Your task to perform on an android device: Add razer blackwidow to the cart on ebay, then select checkout. Image 0: 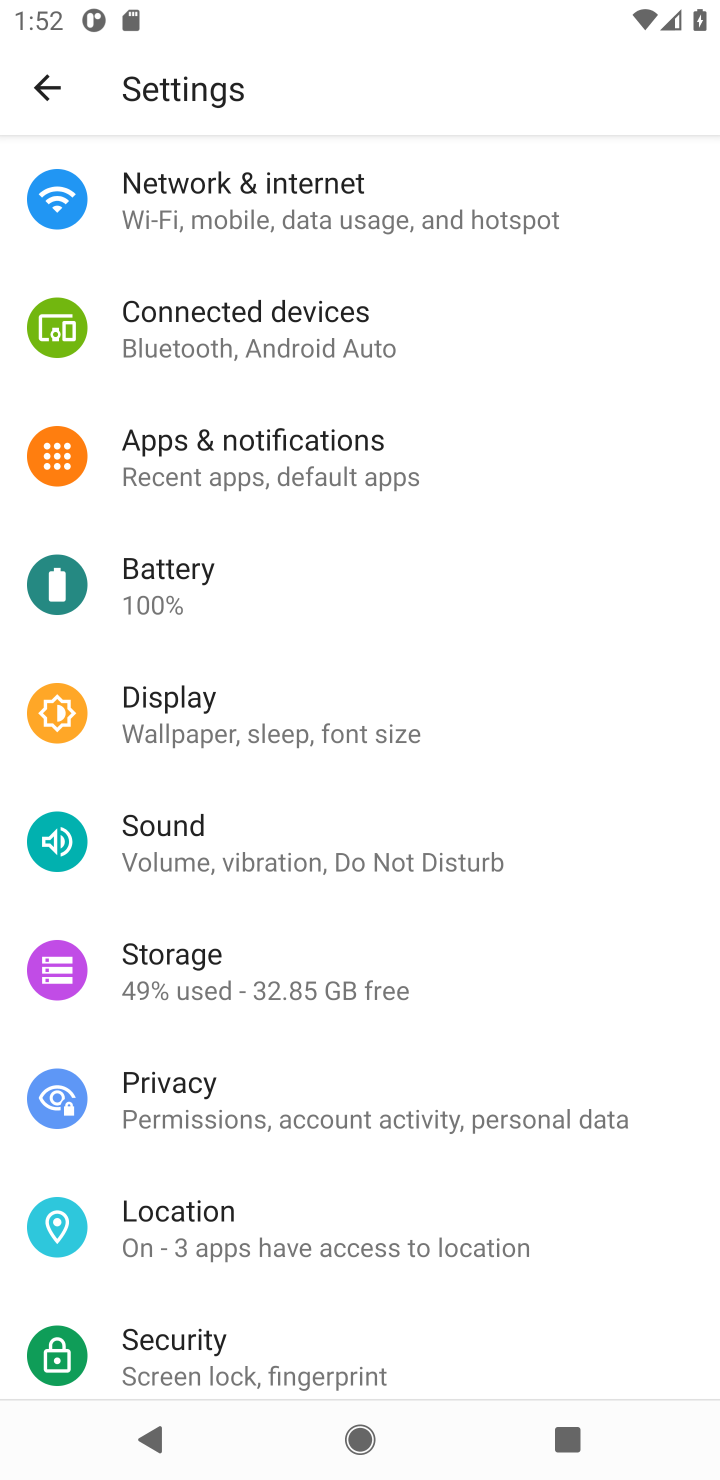
Step 0: press home button
Your task to perform on an android device: Add razer blackwidow to the cart on ebay, then select checkout. Image 1: 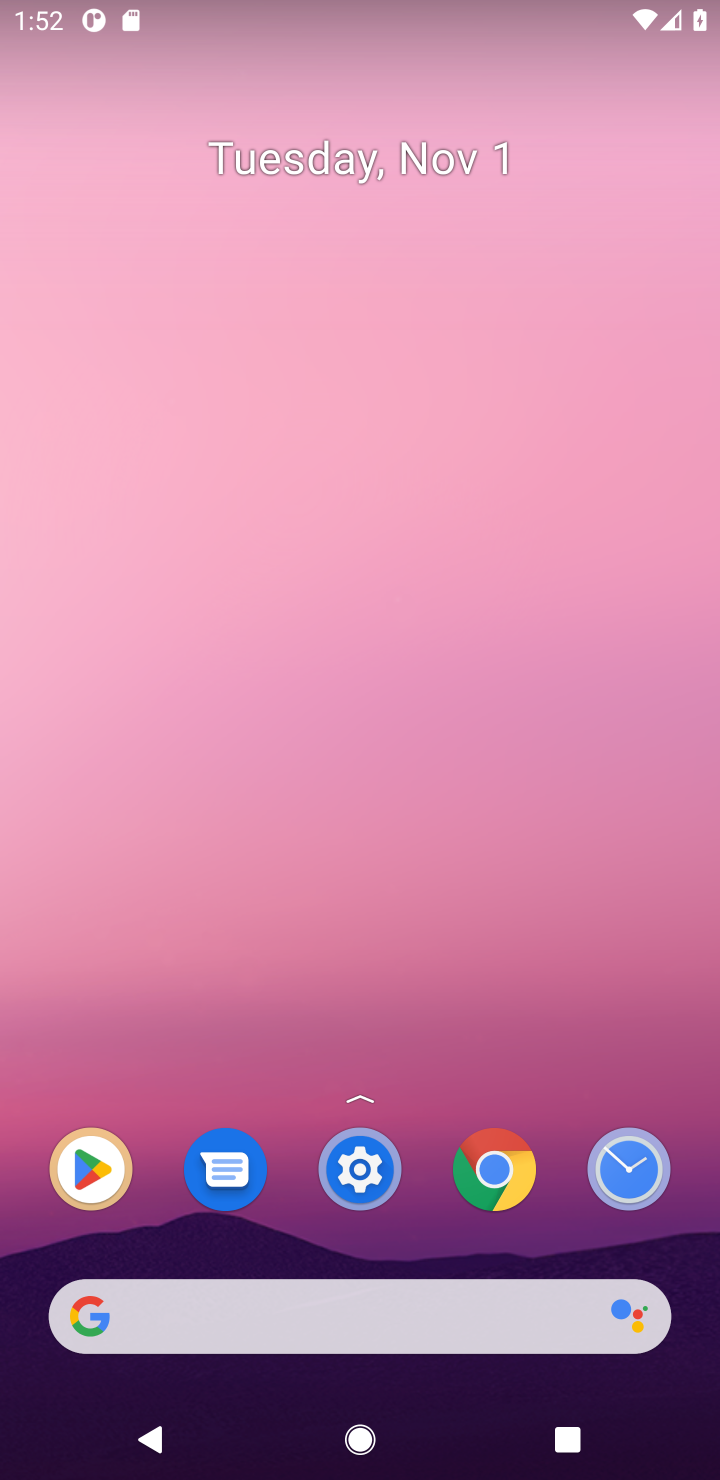
Step 1: drag from (424, 839) to (470, 9)
Your task to perform on an android device: Add razer blackwidow to the cart on ebay, then select checkout. Image 2: 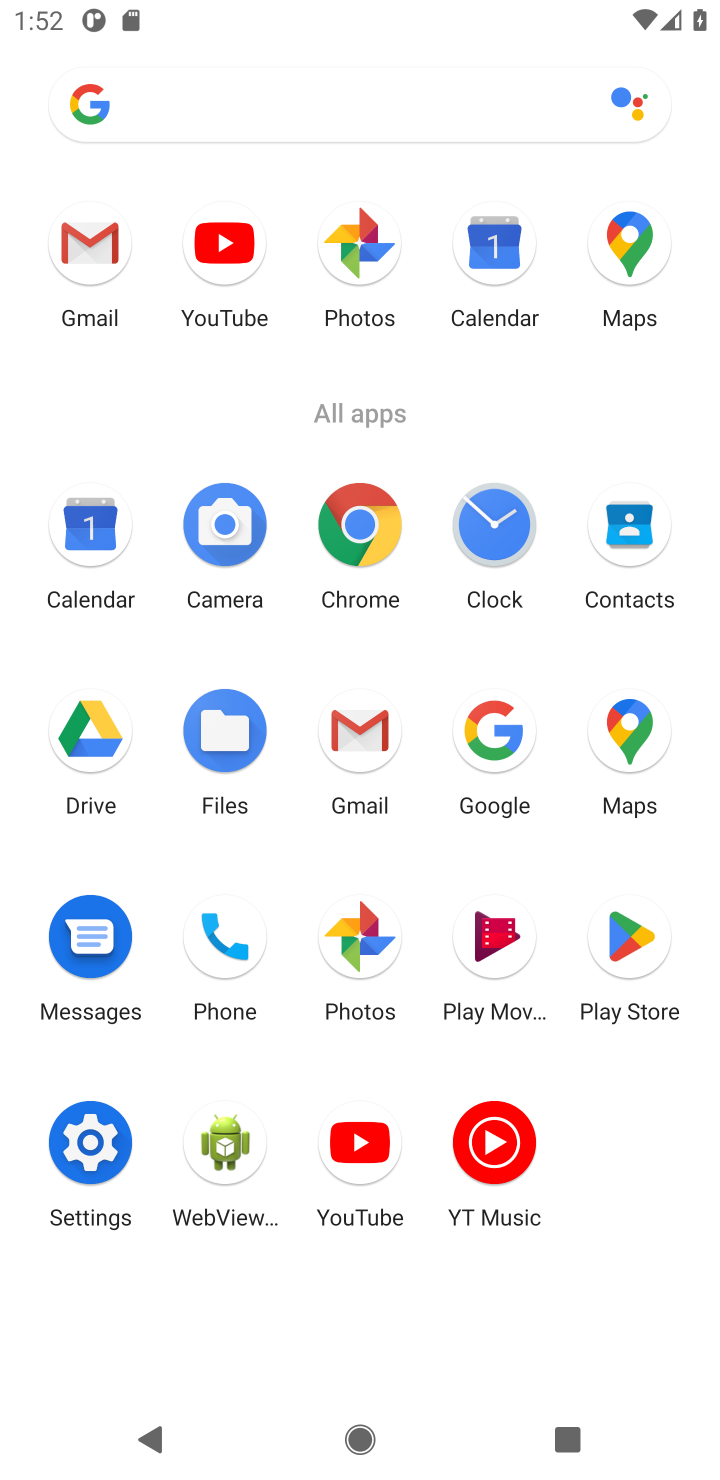
Step 2: click (352, 513)
Your task to perform on an android device: Add razer blackwidow to the cart on ebay, then select checkout. Image 3: 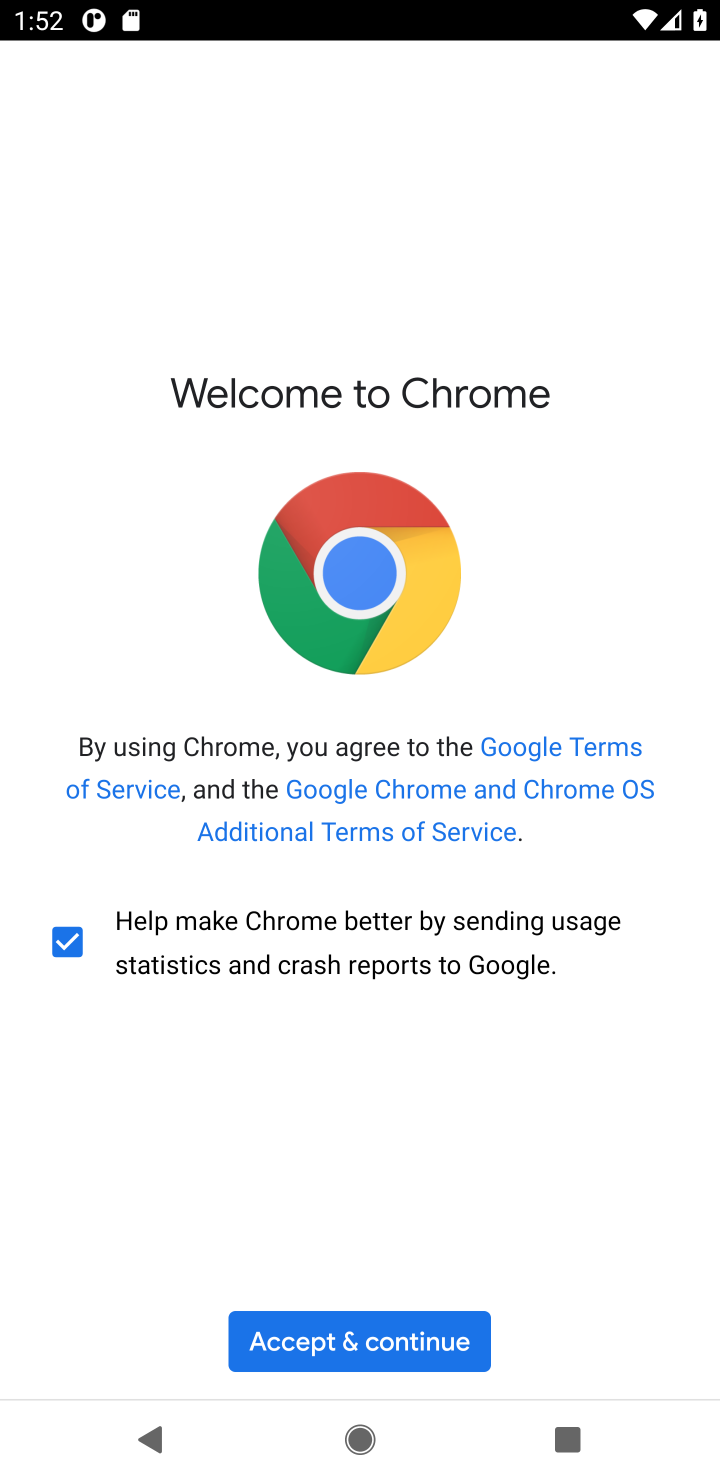
Step 3: click (348, 1342)
Your task to perform on an android device: Add razer blackwidow to the cart on ebay, then select checkout. Image 4: 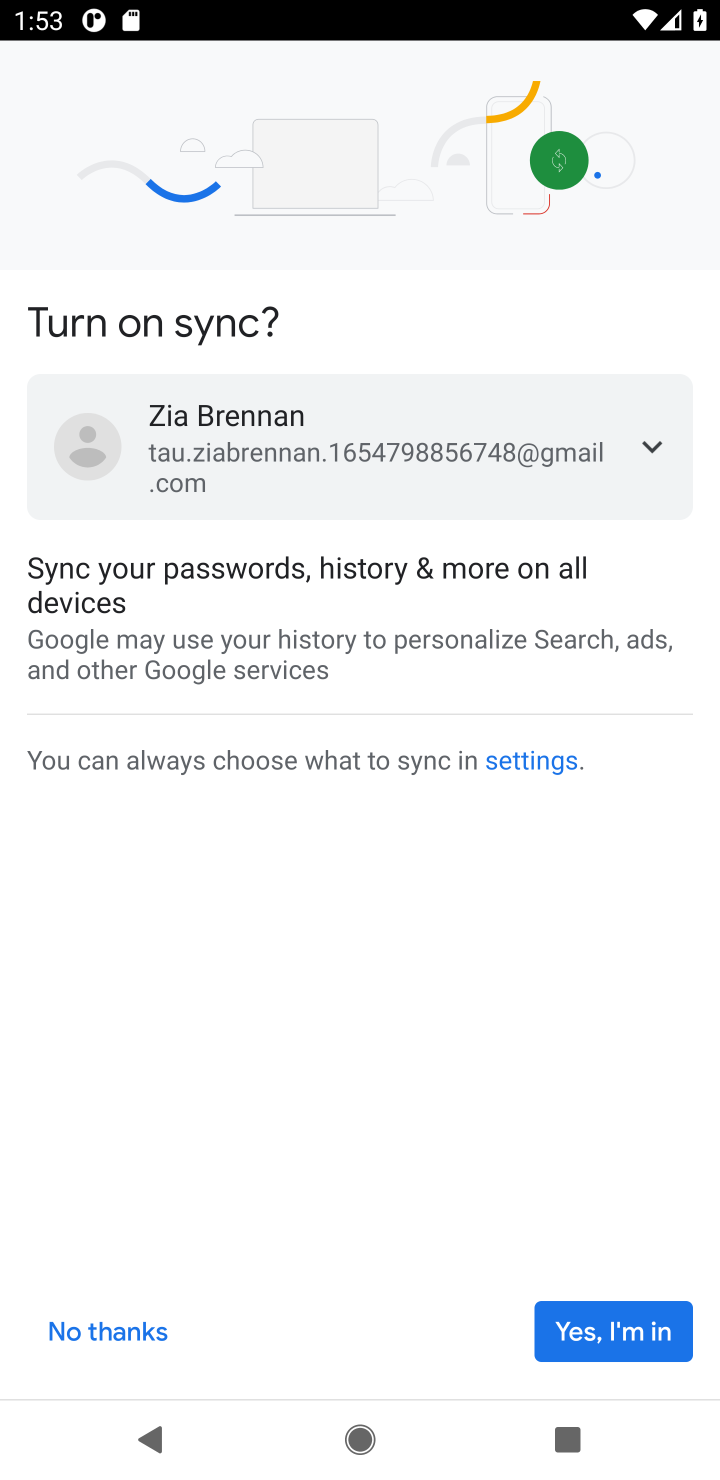
Step 4: click (602, 1323)
Your task to perform on an android device: Add razer blackwidow to the cart on ebay, then select checkout. Image 5: 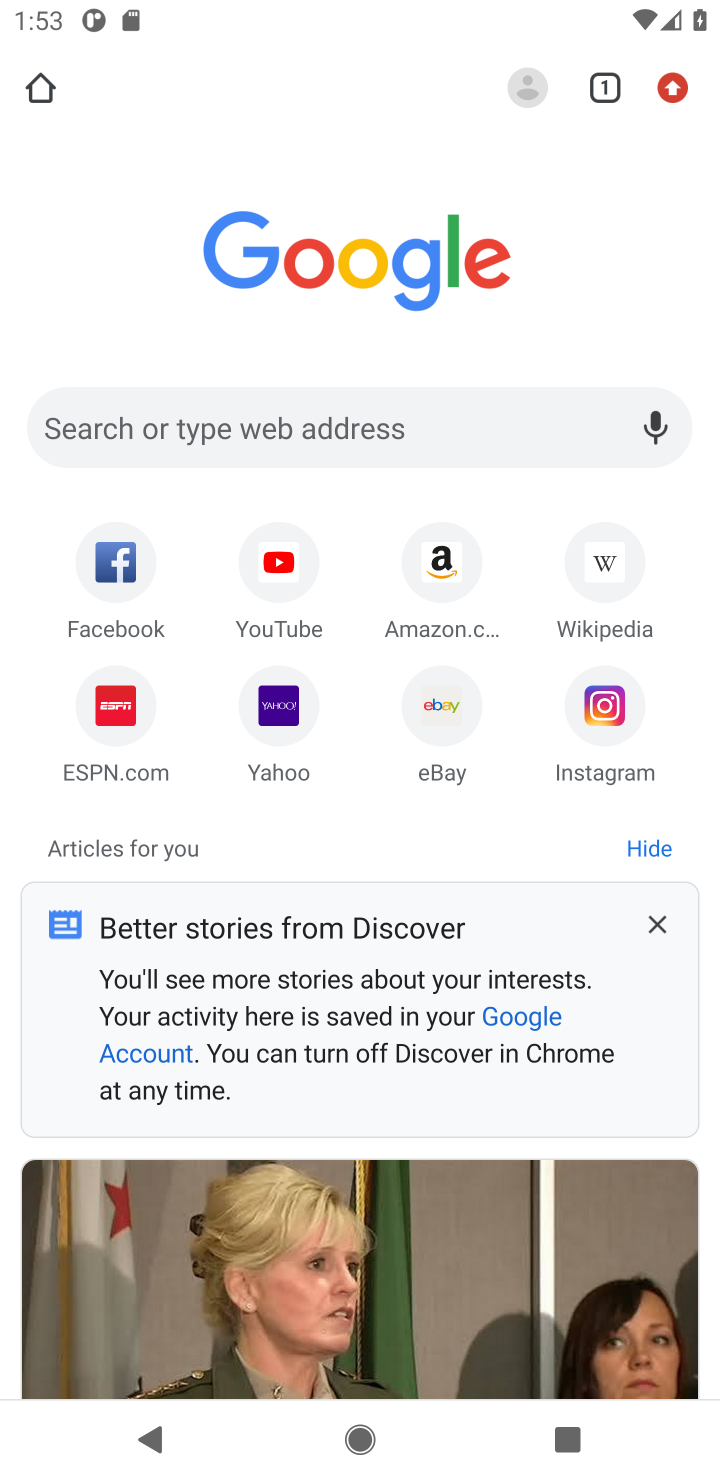
Step 5: click (206, 437)
Your task to perform on an android device: Add razer blackwidow to the cart on ebay, then select checkout. Image 6: 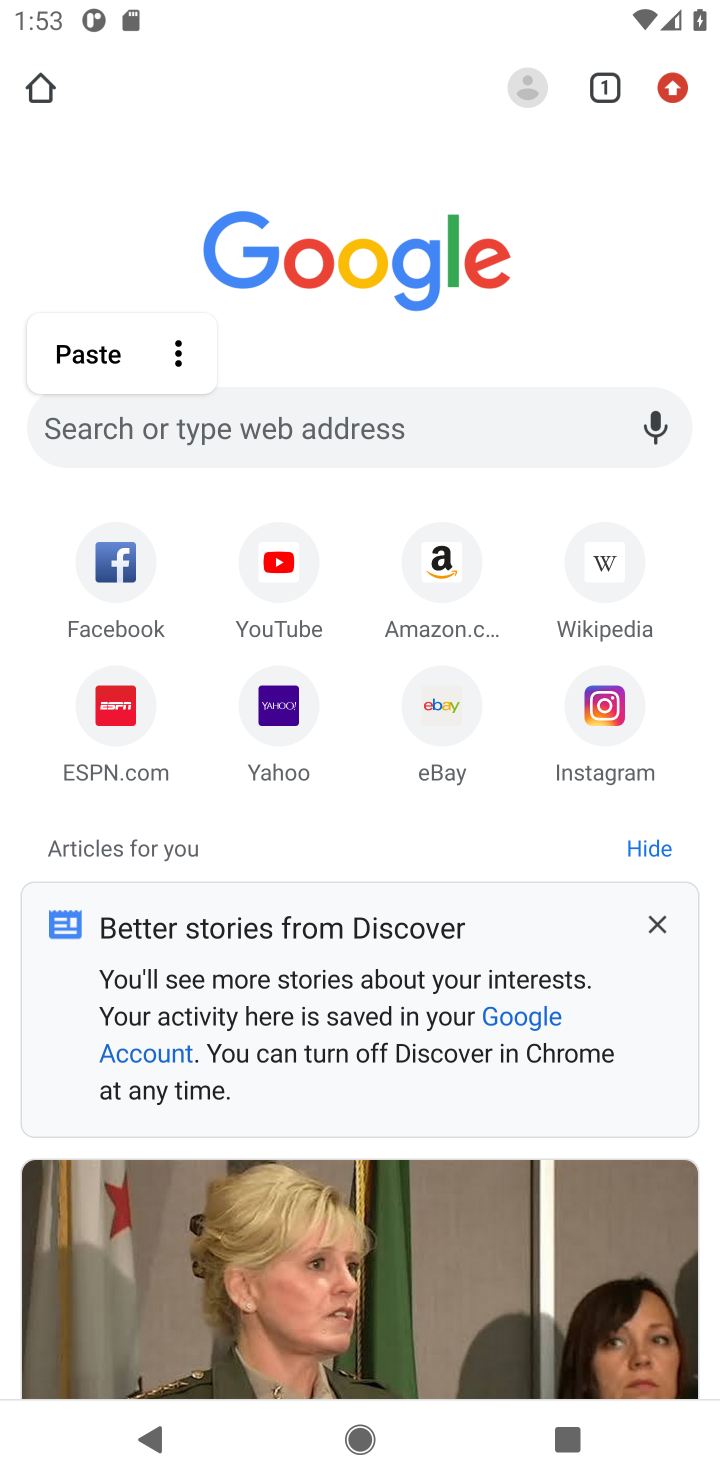
Step 6: click (430, 716)
Your task to perform on an android device: Add razer blackwidow to the cart on ebay, then select checkout. Image 7: 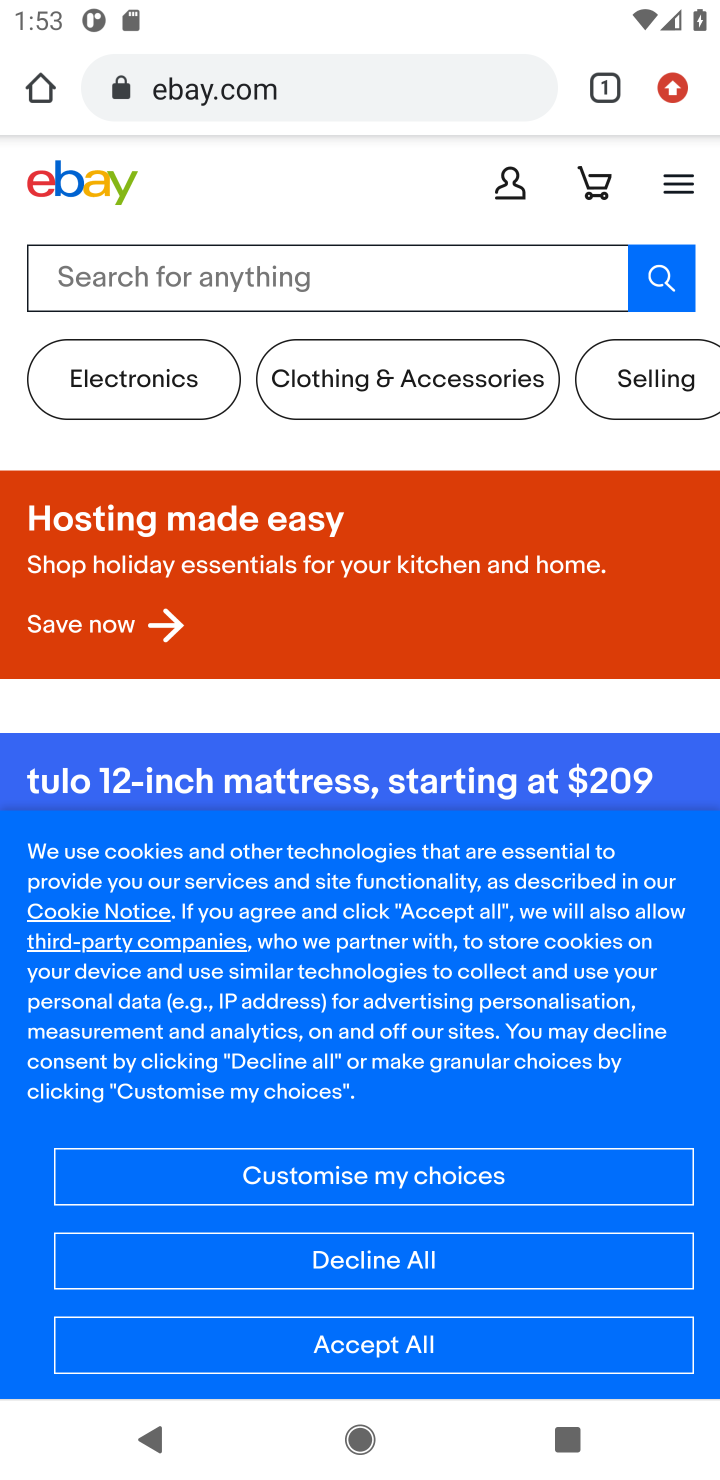
Step 7: click (237, 253)
Your task to perform on an android device: Add razer blackwidow to the cart on ebay, then select checkout. Image 8: 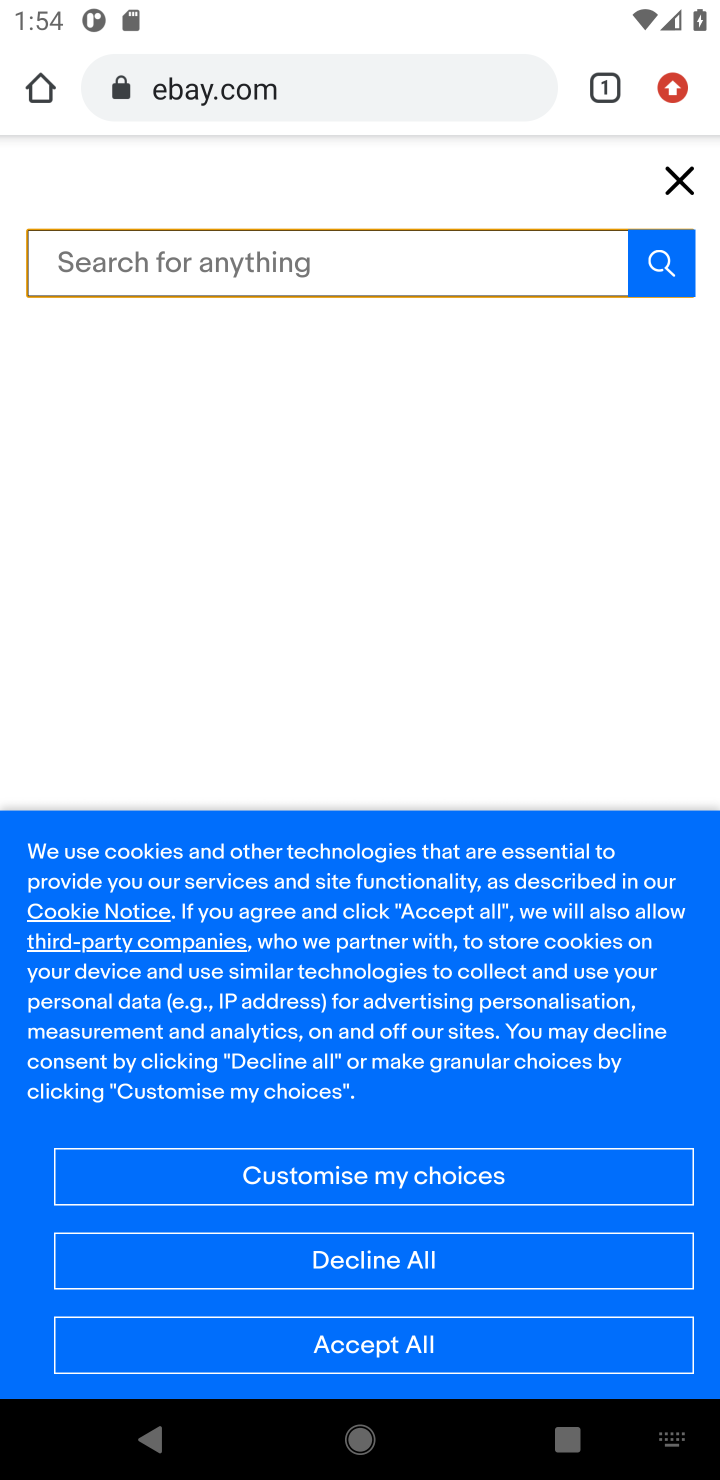
Step 8: type "razer blackwidow"
Your task to perform on an android device: Add razer blackwidow to the cart on ebay, then select checkout. Image 9: 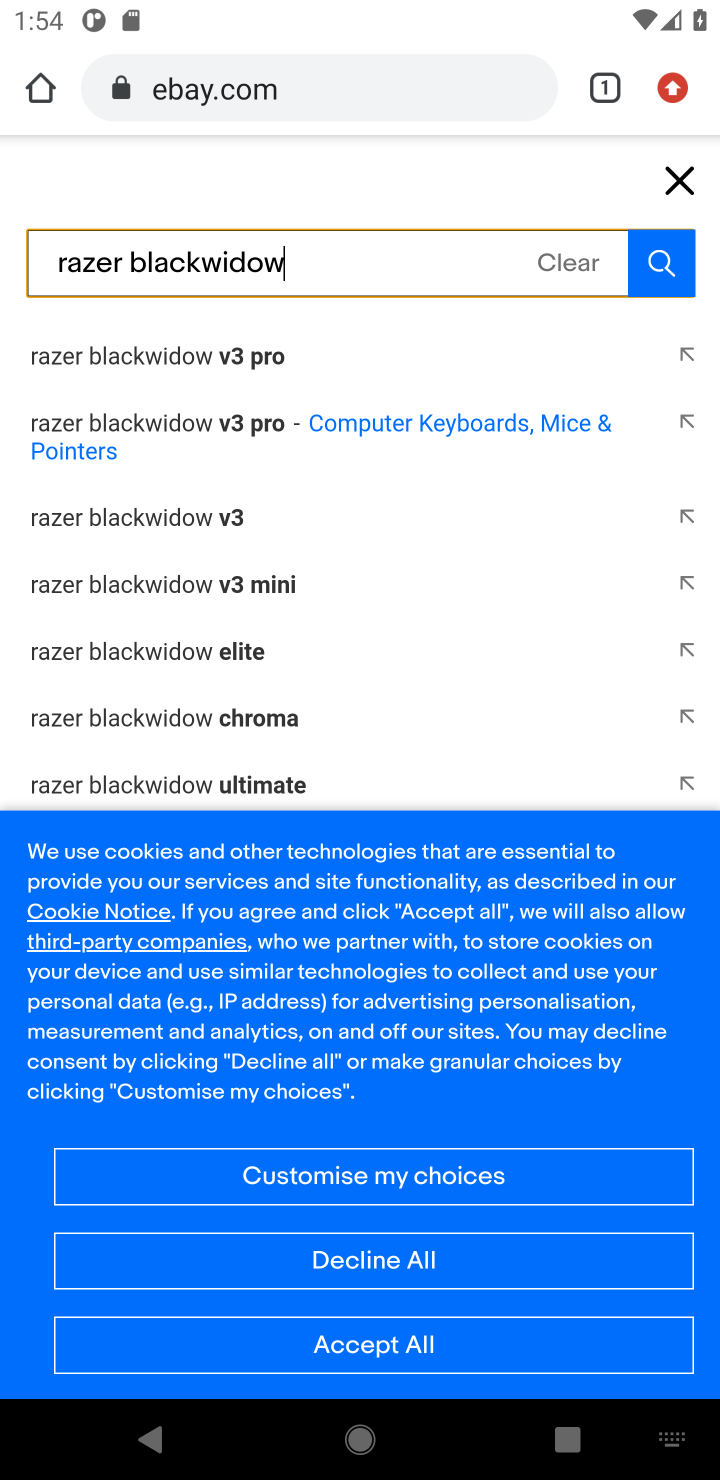
Step 9: click (209, 359)
Your task to perform on an android device: Add razer blackwidow to the cart on ebay, then select checkout. Image 10: 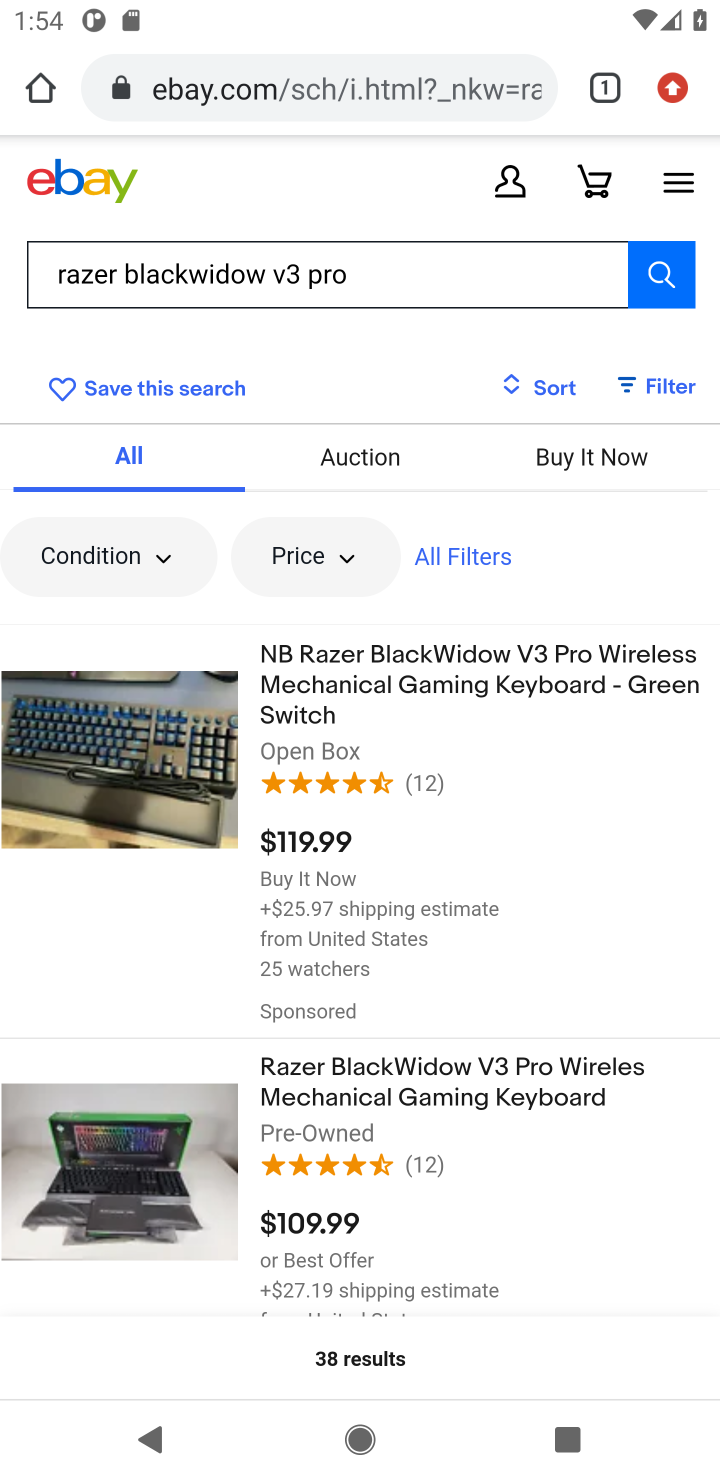
Step 10: click (330, 673)
Your task to perform on an android device: Add razer blackwidow to the cart on ebay, then select checkout. Image 11: 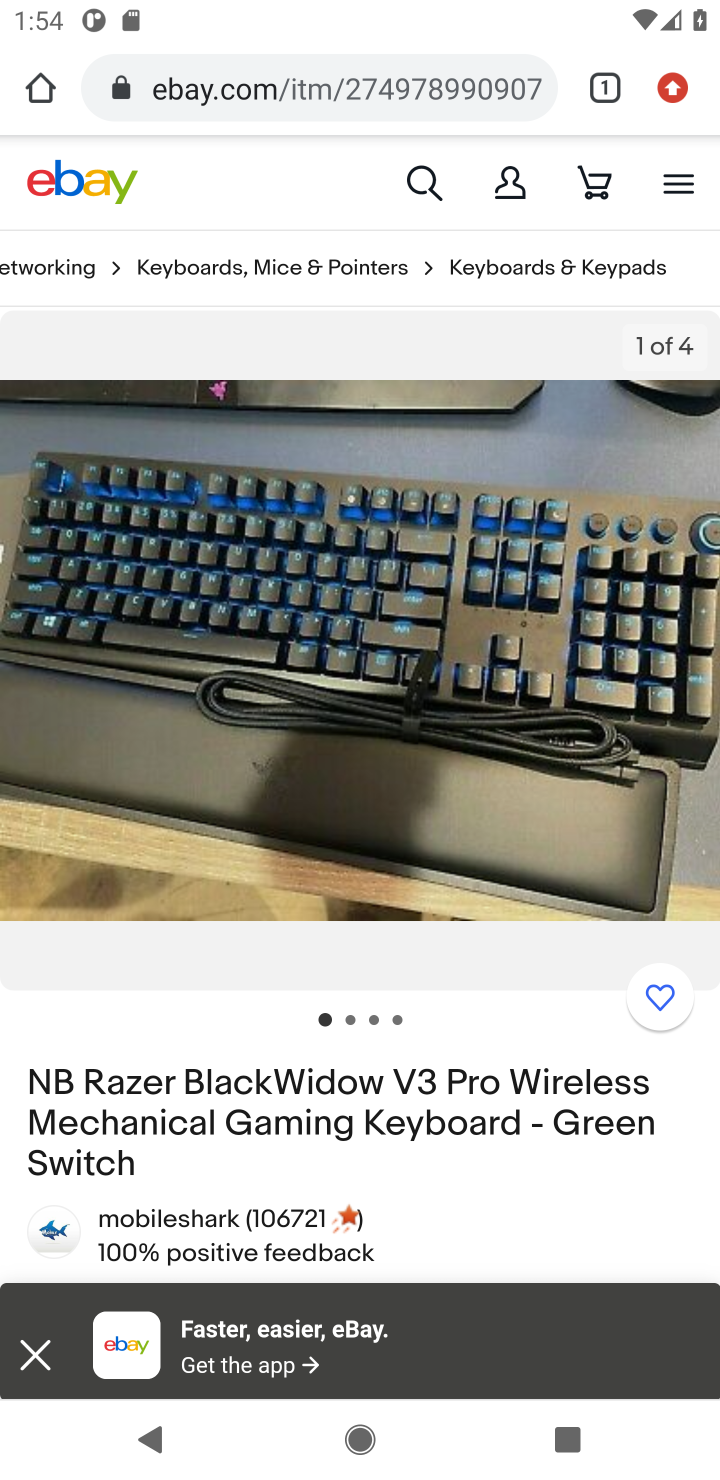
Step 11: drag from (434, 1204) to (463, 651)
Your task to perform on an android device: Add razer blackwidow to the cart on ebay, then select checkout. Image 12: 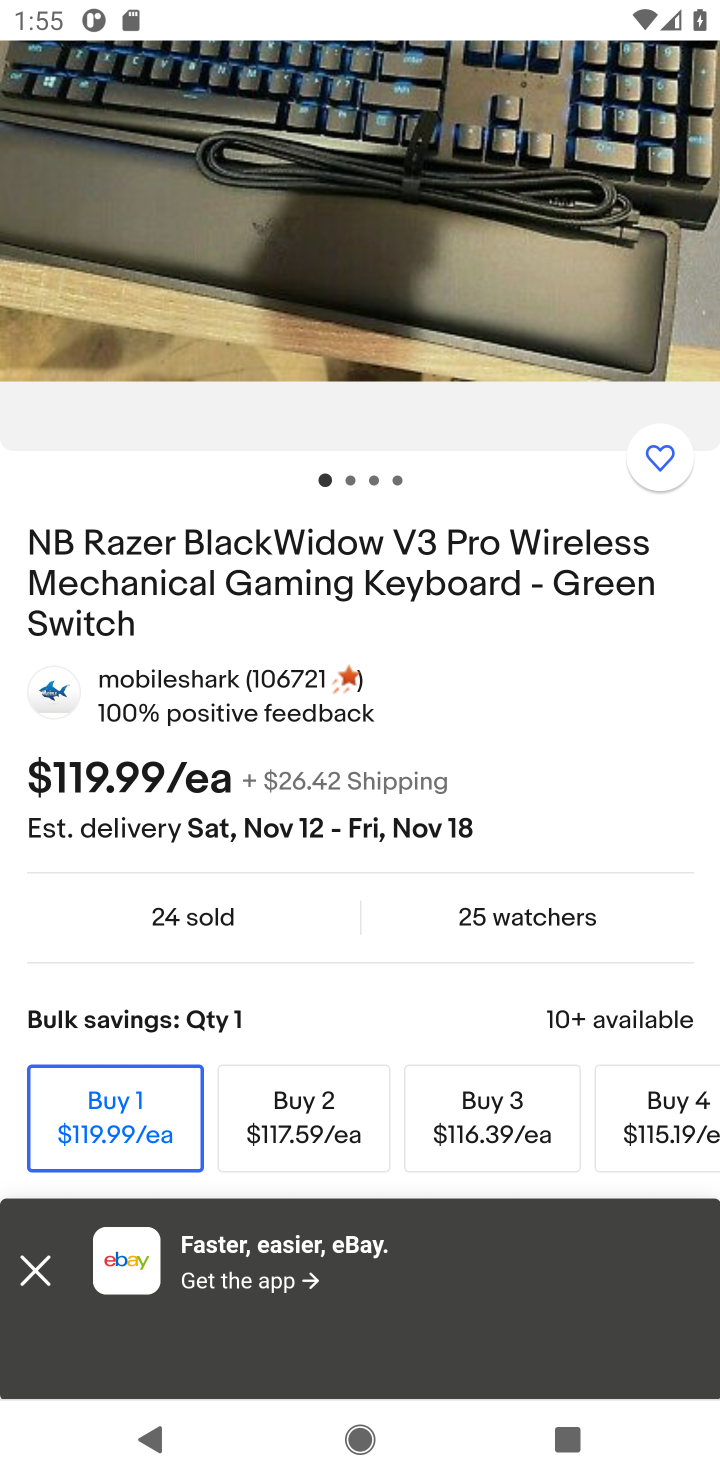
Step 12: drag from (372, 802) to (387, 387)
Your task to perform on an android device: Add razer blackwidow to the cart on ebay, then select checkout. Image 13: 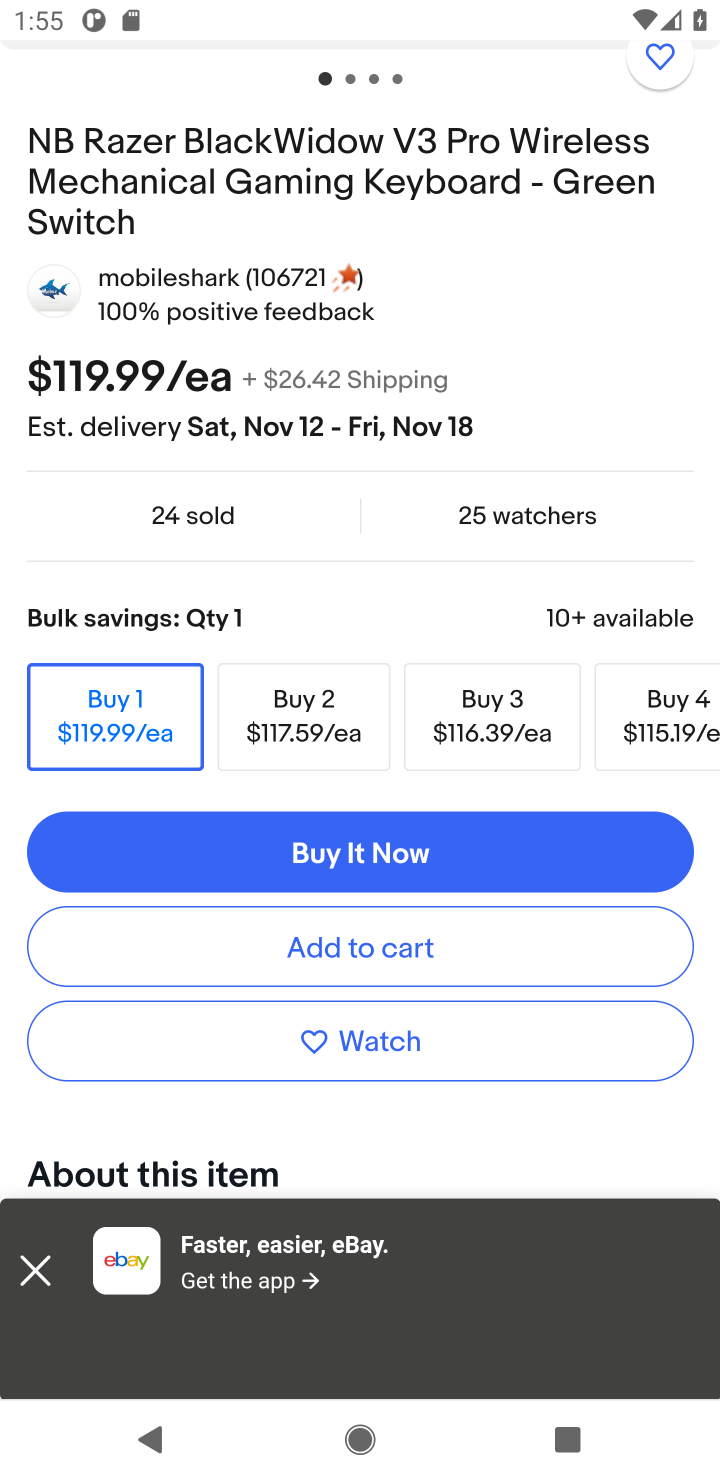
Step 13: click (362, 945)
Your task to perform on an android device: Add razer blackwidow to the cart on ebay, then select checkout. Image 14: 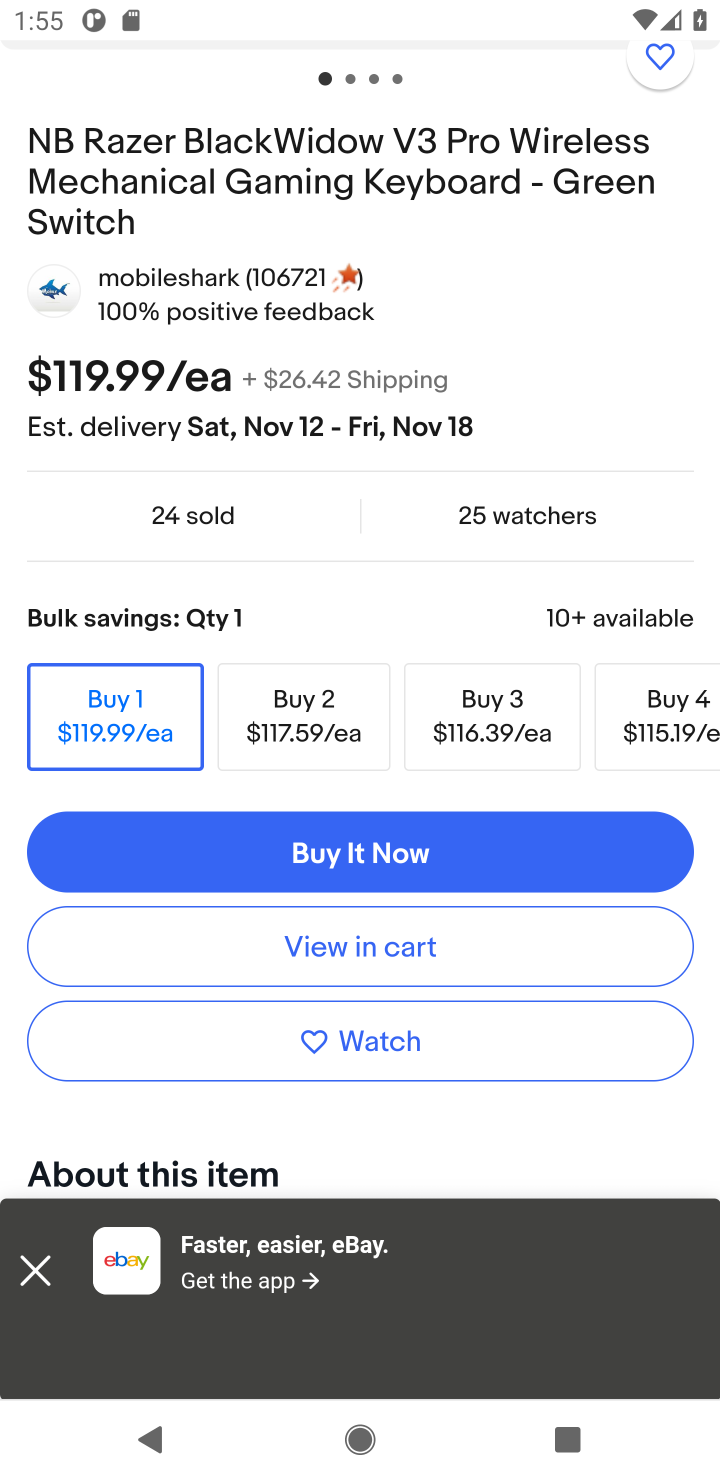
Step 14: click (321, 954)
Your task to perform on an android device: Add razer blackwidow to the cart on ebay, then select checkout. Image 15: 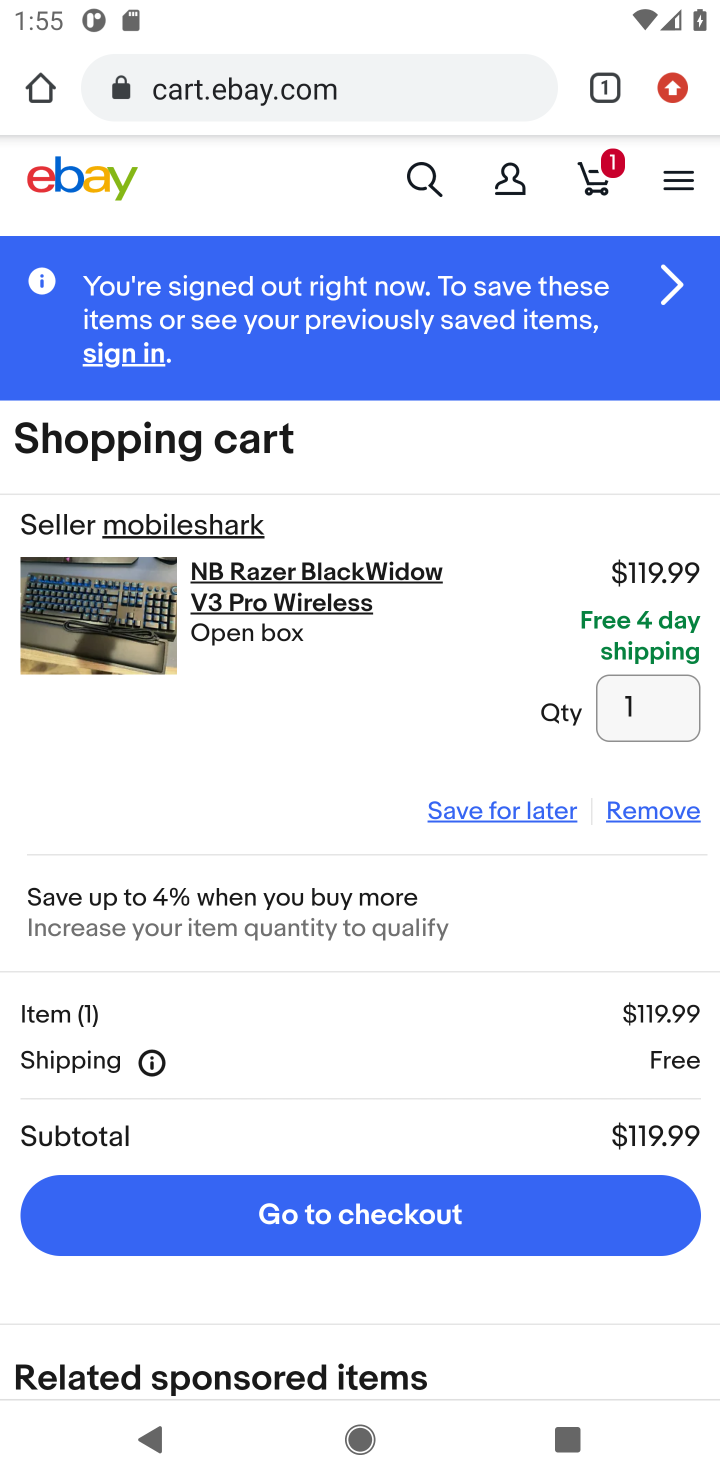
Step 15: click (353, 1214)
Your task to perform on an android device: Add razer blackwidow to the cart on ebay, then select checkout. Image 16: 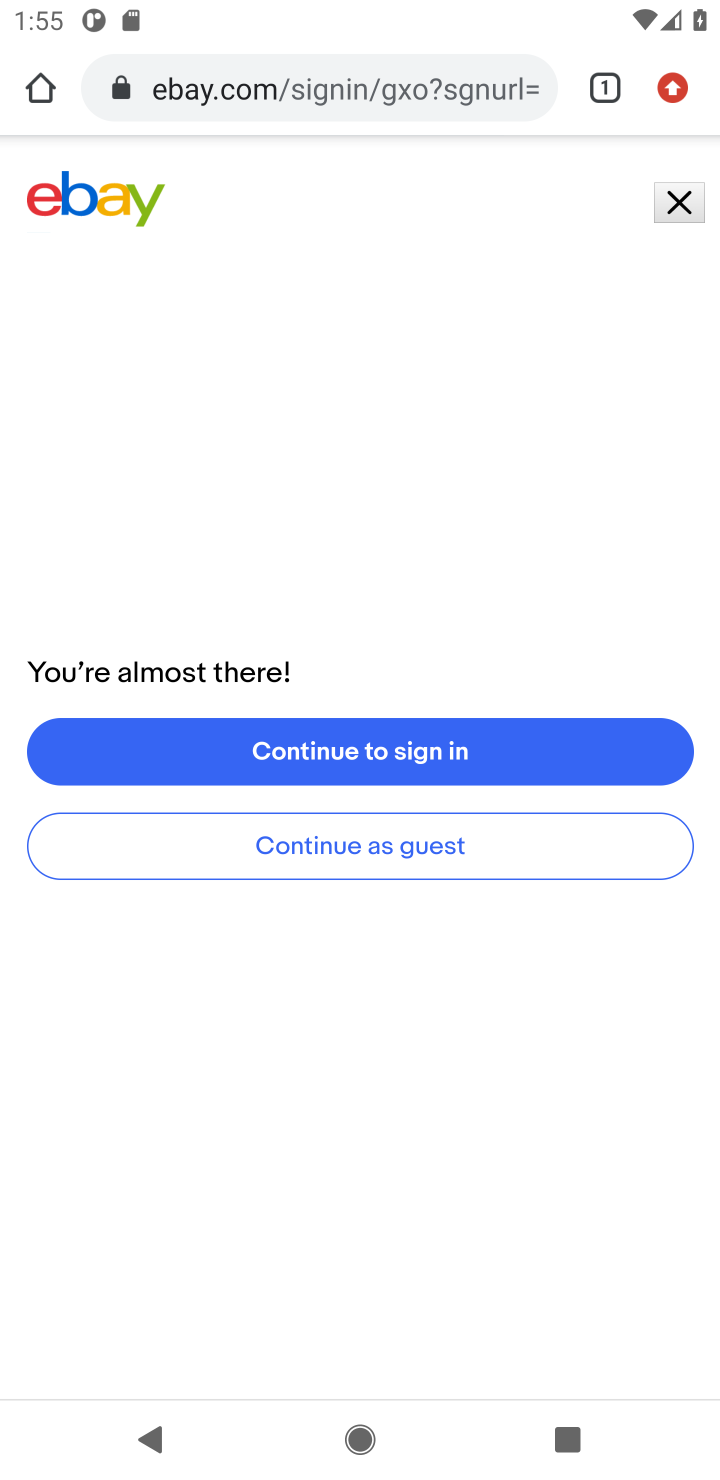
Step 16: task complete